Your task to perform on an android device: Open calendar and show me the third week of next month Image 0: 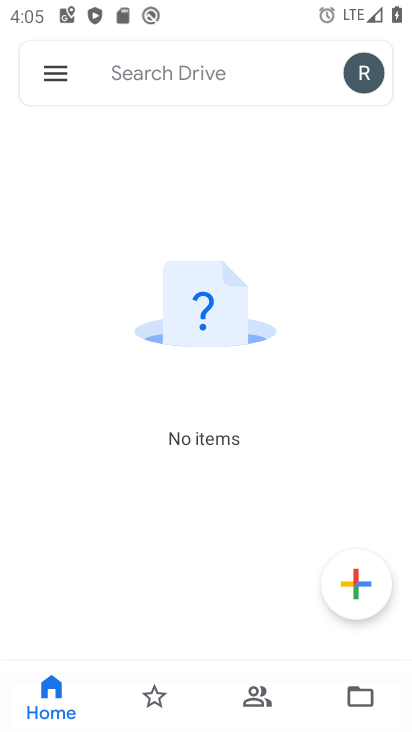
Step 0: press home button
Your task to perform on an android device: Open calendar and show me the third week of next month Image 1: 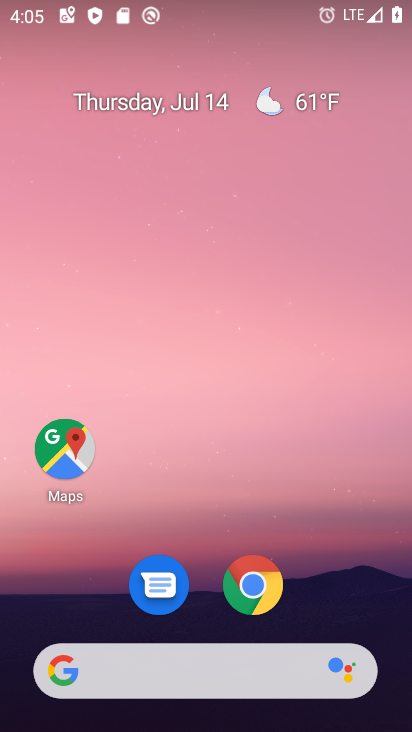
Step 1: drag from (314, 519) to (387, 34)
Your task to perform on an android device: Open calendar and show me the third week of next month Image 2: 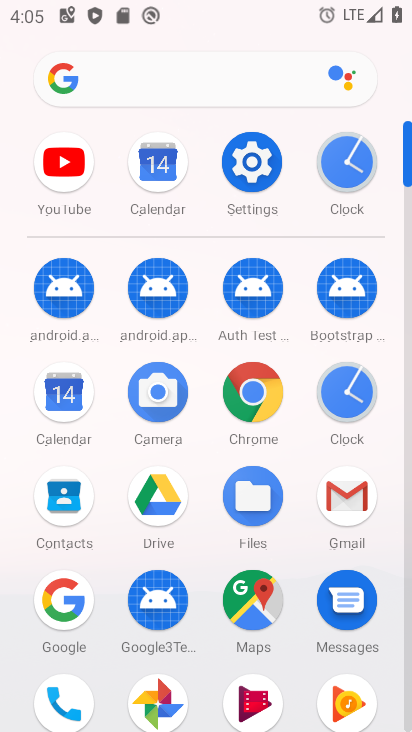
Step 2: click (161, 165)
Your task to perform on an android device: Open calendar and show me the third week of next month Image 3: 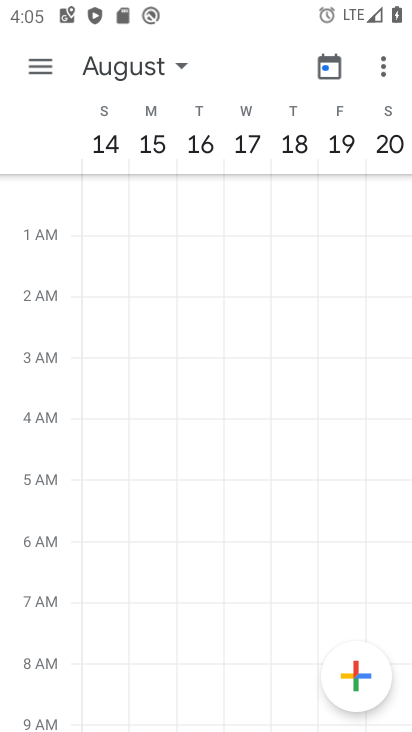
Step 3: task complete